Your task to perform on an android device: turn on translation in the chrome app Image 0: 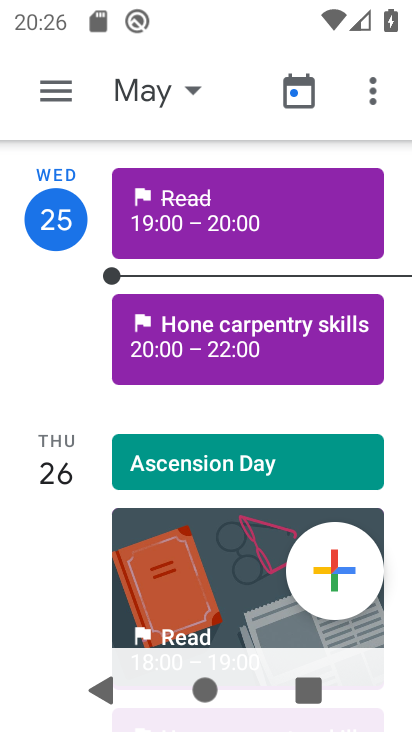
Step 0: press home button
Your task to perform on an android device: turn on translation in the chrome app Image 1: 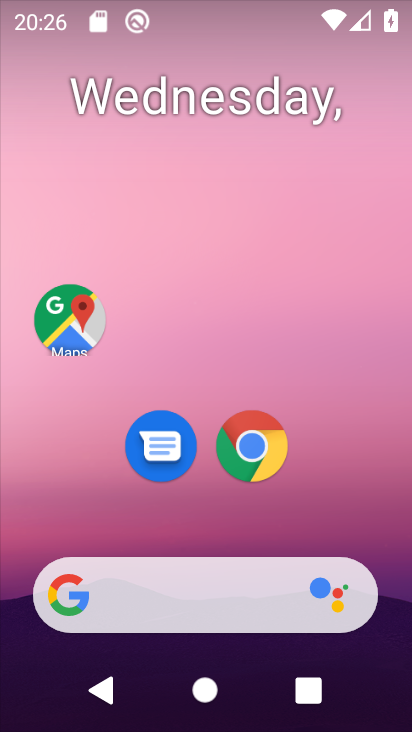
Step 1: click (258, 441)
Your task to perform on an android device: turn on translation in the chrome app Image 2: 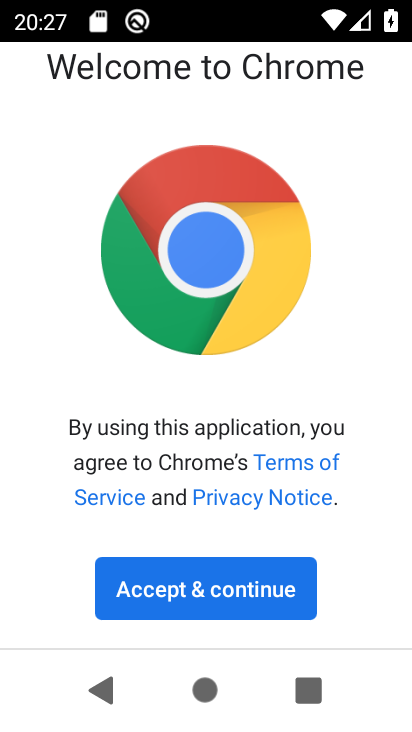
Step 2: click (231, 573)
Your task to perform on an android device: turn on translation in the chrome app Image 3: 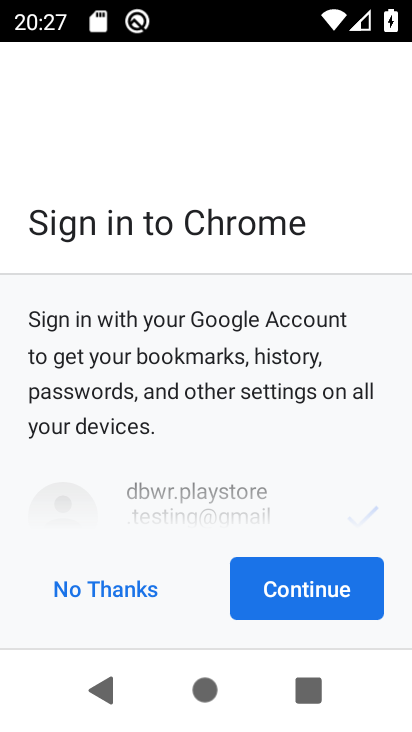
Step 3: click (299, 579)
Your task to perform on an android device: turn on translation in the chrome app Image 4: 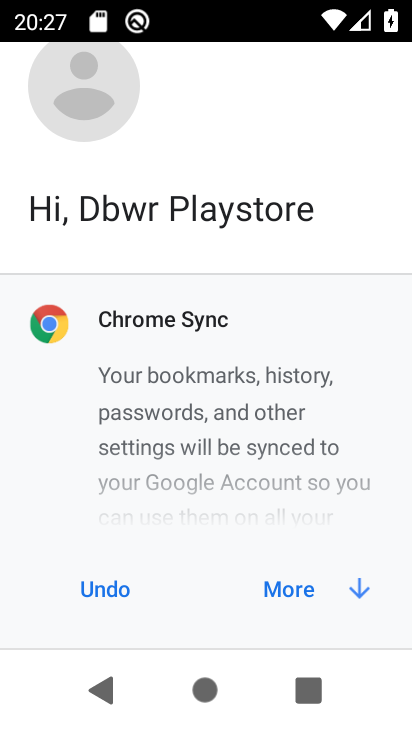
Step 4: click (315, 595)
Your task to perform on an android device: turn on translation in the chrome app Image 5: 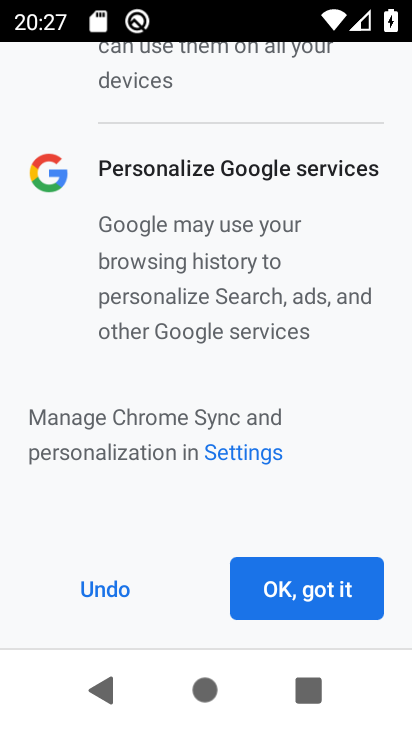
Step 5: click (315, 595)
Your task to perform on an android device: turn on translation in the chrome app Image 6: 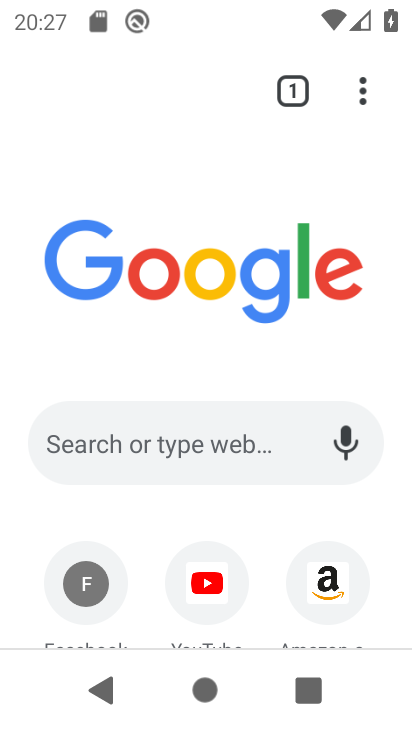
Step 6: drag from (360, 92) to (131, 470)
Your task to perform on an android device: turn on translation in the chrome app Image 7: 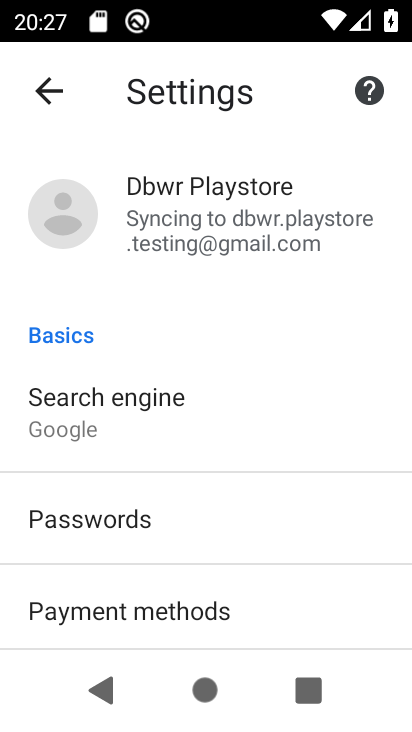
Step 7: drag from (183, 560) to (77, 12)
Your task to perform on an android device: turn on translation in the chrome app Image 8: 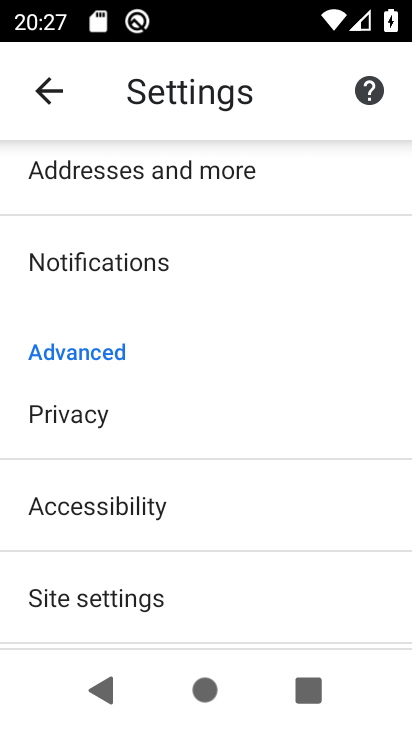
Step 8: drag from (167, 594) to (72, 121)
Your task to perform on an android device: turn on translation in the chrome app Image 9: 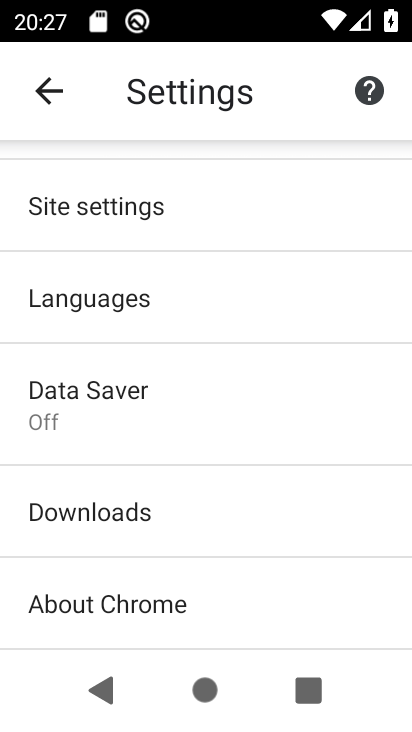
Step 9: click (141, 316)
Your task to perform on an android device: turn on translation in the chrome app Image 10: 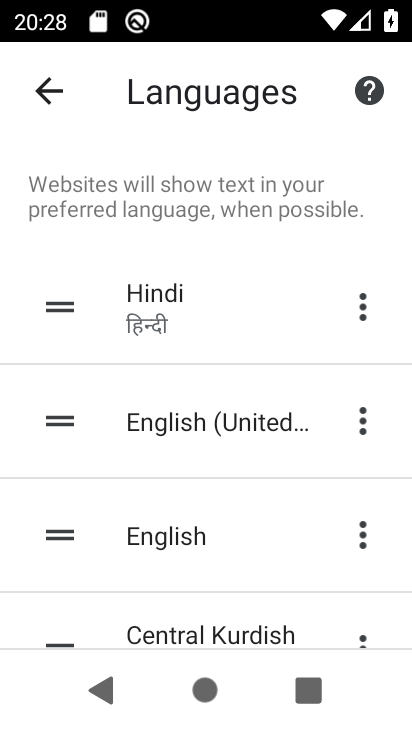
Step 10: drag from (198, 407) to (218, 27)
Your task to perform on an android device: turn on translation in the chrome app Image 11: 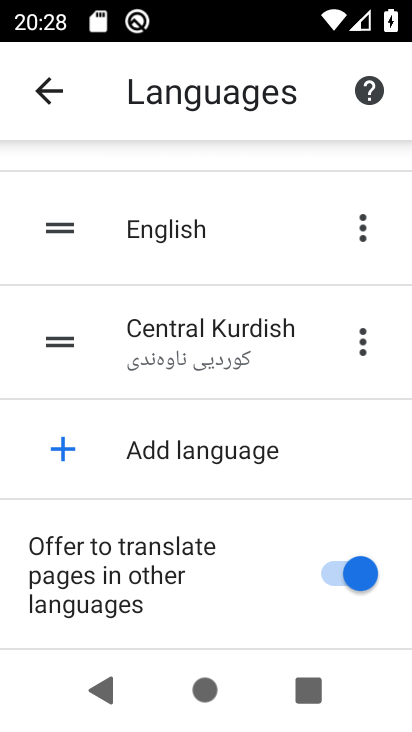
Step 11: click (323, 573)
Your task to perform on an android device: turn on translation in the chrome app Image 12: 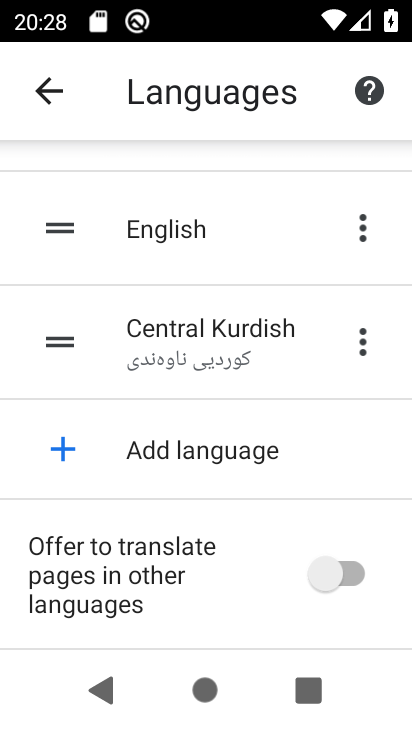
Step 12: task complete